Your task to perform on an android device: toggle translation in the chrome app Image 0: 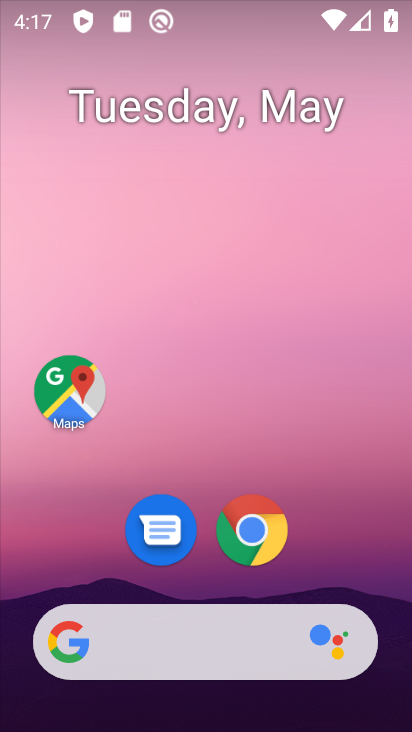
Step 0: click (270, 530)
Your task to perform on an android device: toggle translation in the chrome app Image 1: 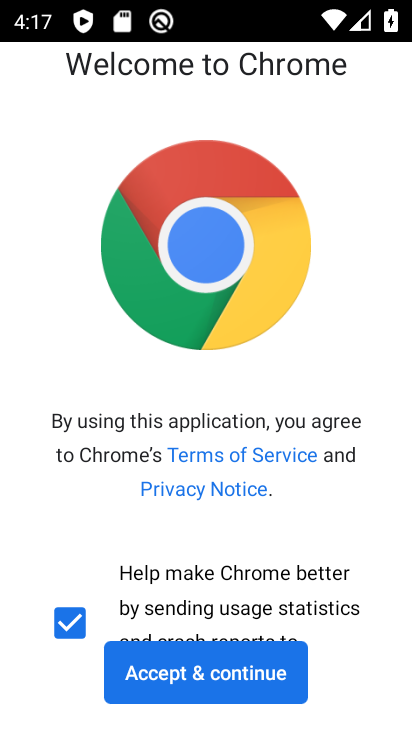
Step 1: click (229, 676)
Your task to perform on an android device: toggle translation in the chrome app Image 2: 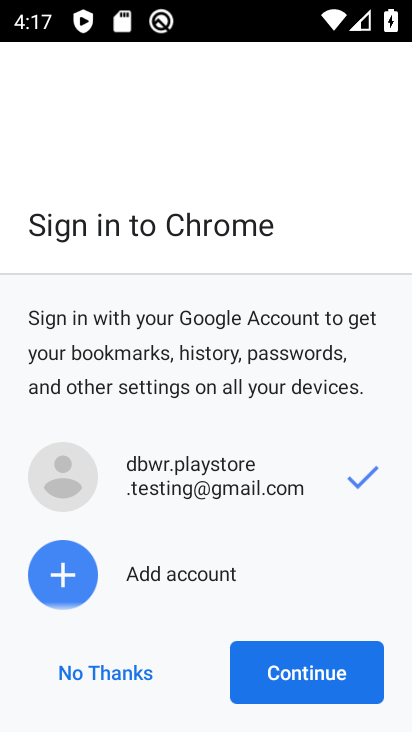
Step 2: click (291, 664)
Your task to perform on an android device: toggle translation in the chrome app Image 3: 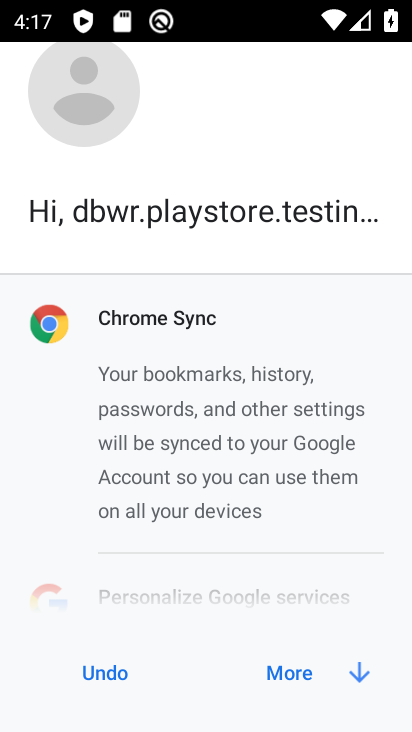
Step 3: click (291, 664)
Your task to perform on an android device: toggle translation in the chrome app Image 4: 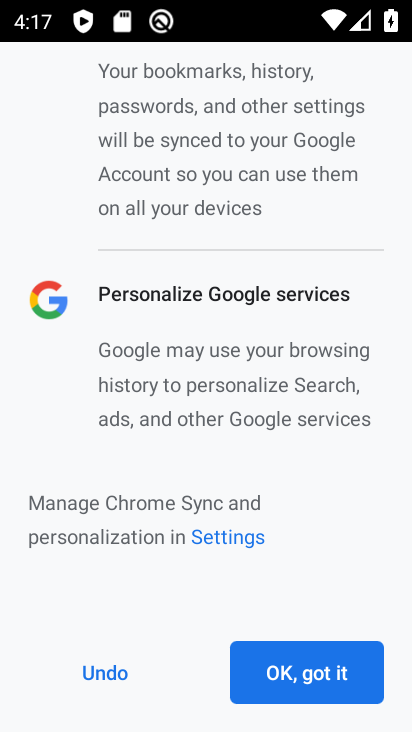
Step 4: click (291, 664)
Your task to perform on an android device: toggle translation in the chrome app Image 5: 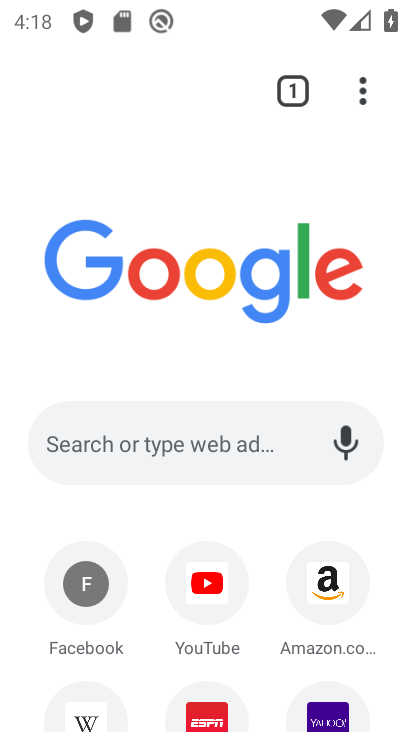
Step 5: click (373, 87)
Your task to perform on an android device: toggle translation in the chrome app Image 6: 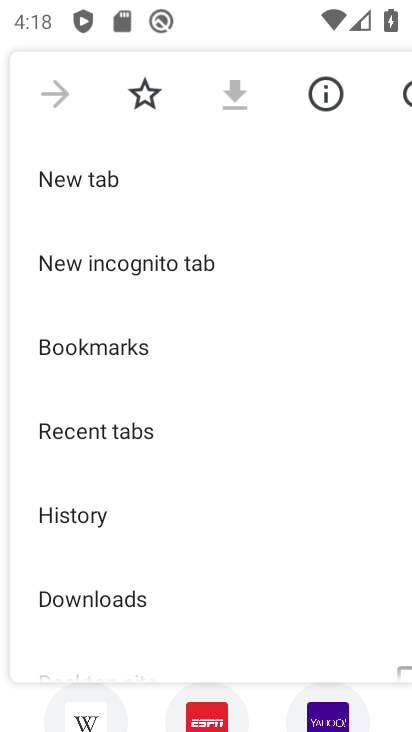
Step 6: drag from (193, 628) to (168, 60)
Your task to perform on an android device: toggle translation in the chrome app Image 7: 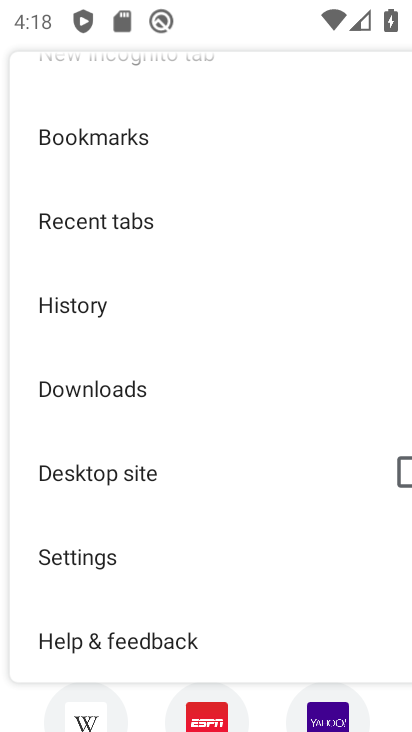
Step 7: click (108, 550)
Your task to perform on an android device: toggle translation in the chrome app Image 8: 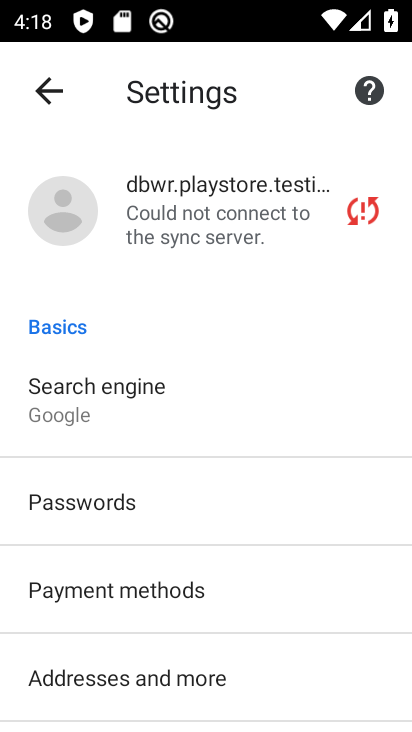
Step 8: drag from (193, 691) to (156, 231)
Your task to perform on an android device: toggle translation in the chrome app Image 9: 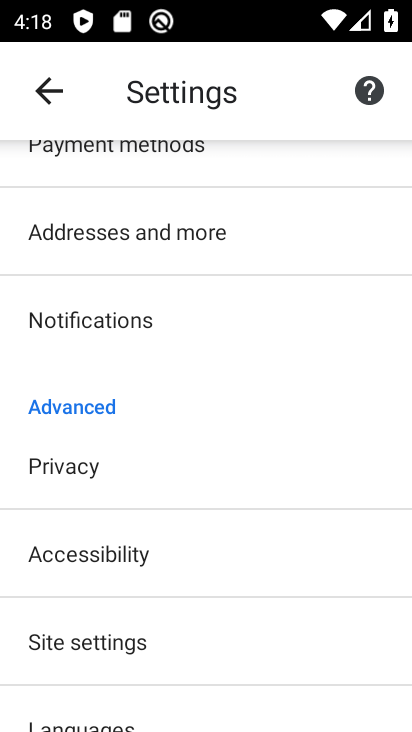
Step 9: drag from (169, 645) to (167, 198)
Your task to perform on an android device: toggle translation in the chrome app Image 10: 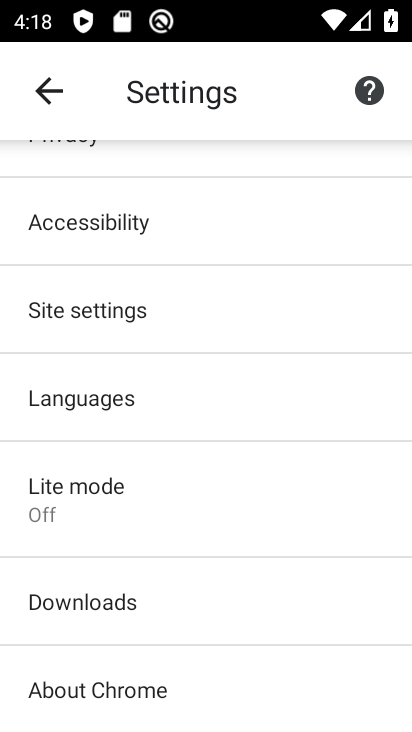
Step 10: click (162, 409)
Your task to perform on an android device: toggle translation in the chrome app Image 11: 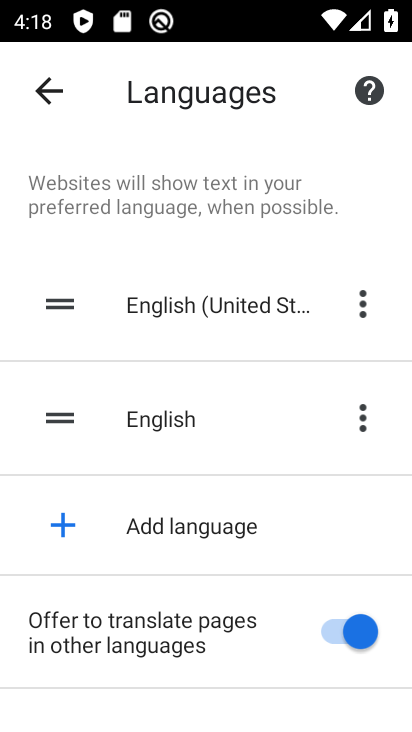
Step 11: click (340, 625)
Your task to perform on an android device: toggle translation in the chrome app Image 12: 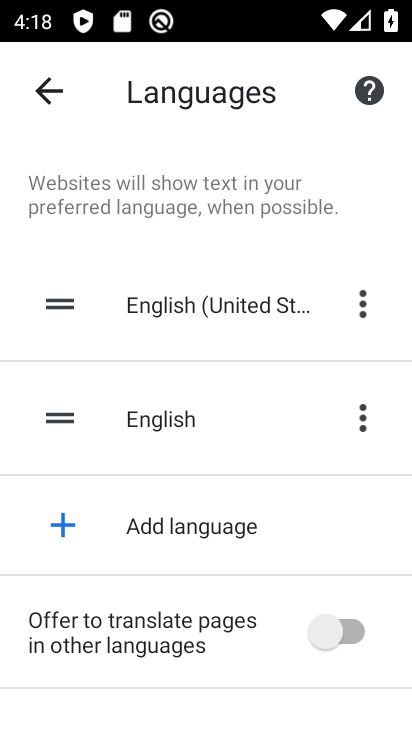
Step 12: task complete